Your task to perform on an android device: open wifi settings Image 0: 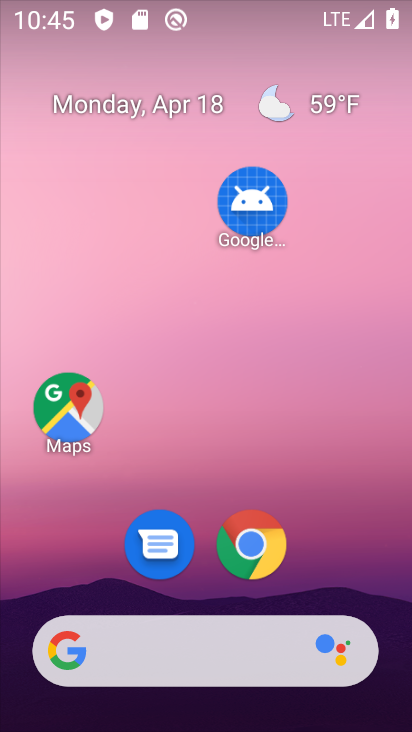
Step 0: drag from (290, 603) to (280, 270)
Your task to perform on an android device: open wifi settings Image 1: 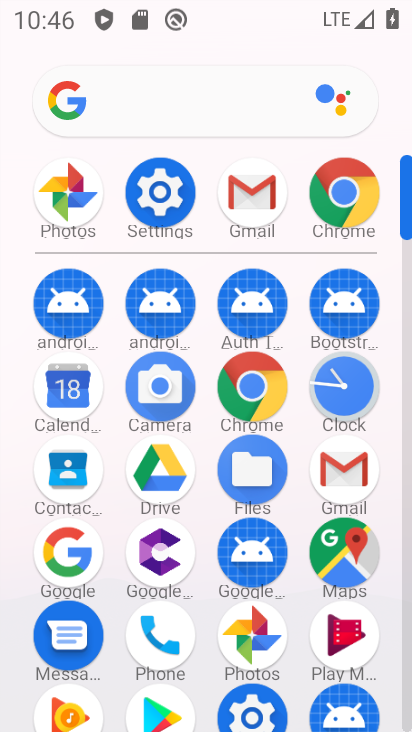
Step 1: click (154, 188)
Your task to perform on an android device: open wifi settings Image 2: 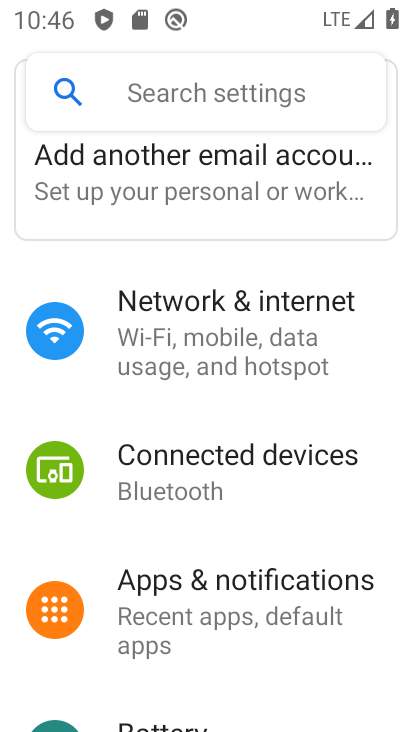
Step 2: click (237, 356)
Your task to perform on an android device: open wifi settings Image 3: 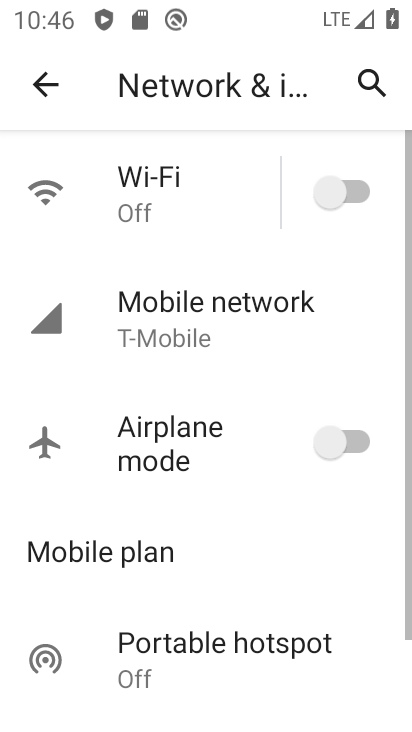
Step 3: click (164, 180)
Your task to perform on an android device: open wifi settings Image 4: 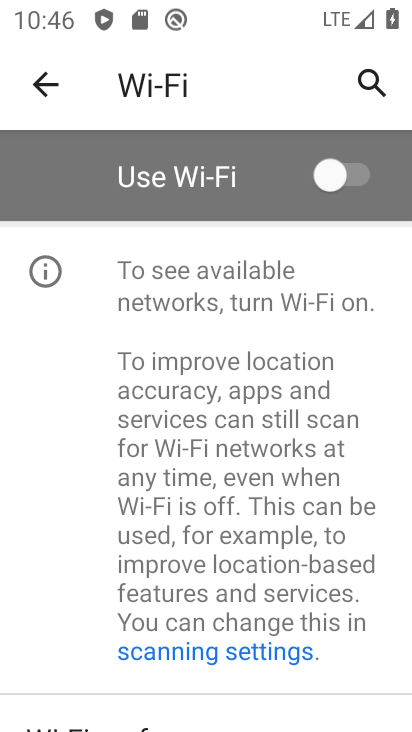
Step 4: task complete